Your task to perform on an android device: change notifications settings Image 0: 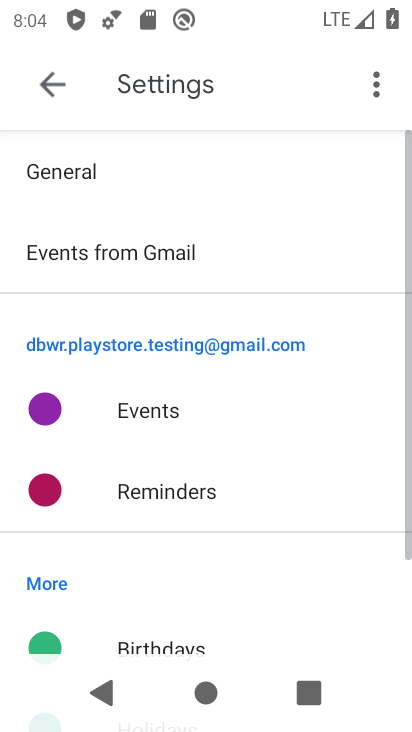
Step 0: press home button
Your task to perform on an android device: change notifications settings Image 1: 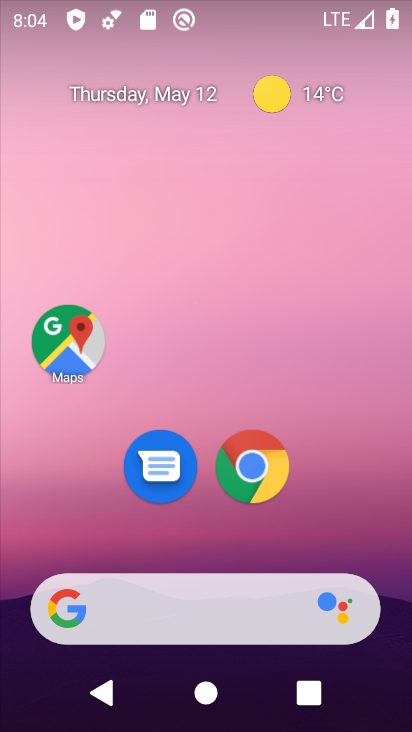
Step 1: drag from (208, 541) to (265, 0)
Your task to perform on an android device: change notifications settings Image 2: 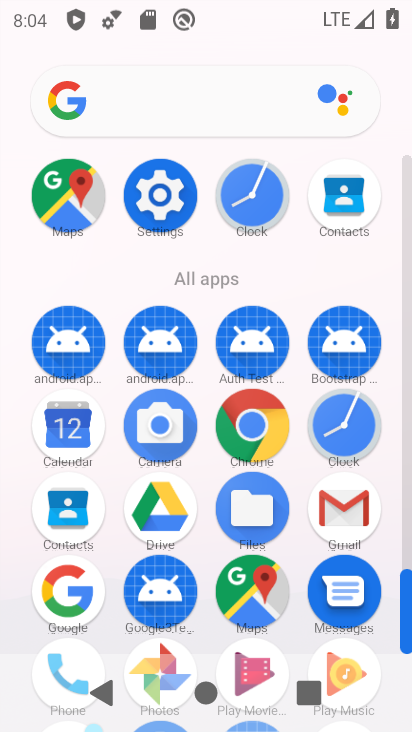
Step 2: click (153, 204)
Your task to perform on an android device: change notifications settings Image 3: 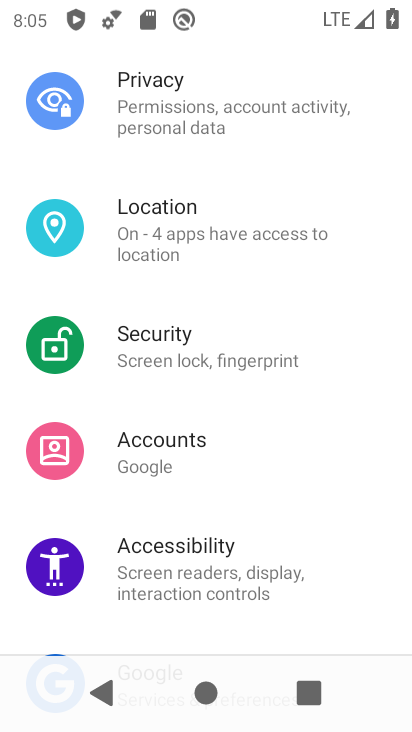
Step 3: drag from (181, 126) to (175, 658)
Your task to perform on an android device: change notifications settings Image 4: 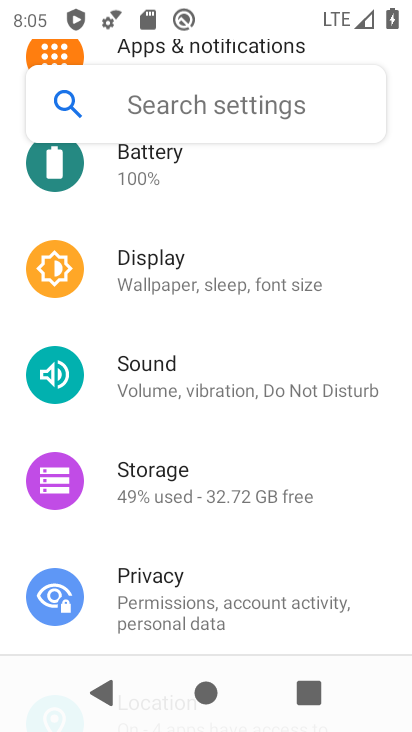
Step 4: drag from (182, 246) to (203, 724)
Your task to perform on an android device: change notifications settings Image 5: 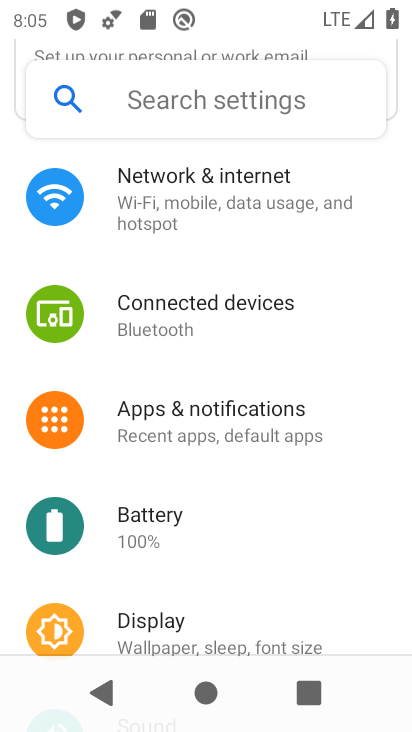
Step 5: click (217, 436)
Your task to perform on an android device: change notifications settings Image 6: 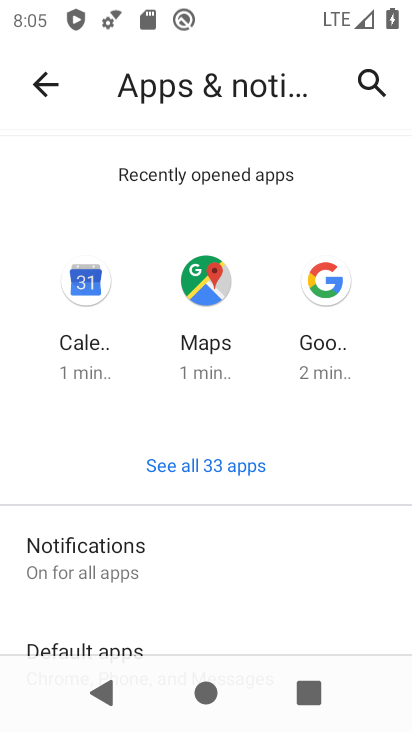
Step 6: click (159, 557)
Your task to perform on an android device: change notifications settings Image 7: 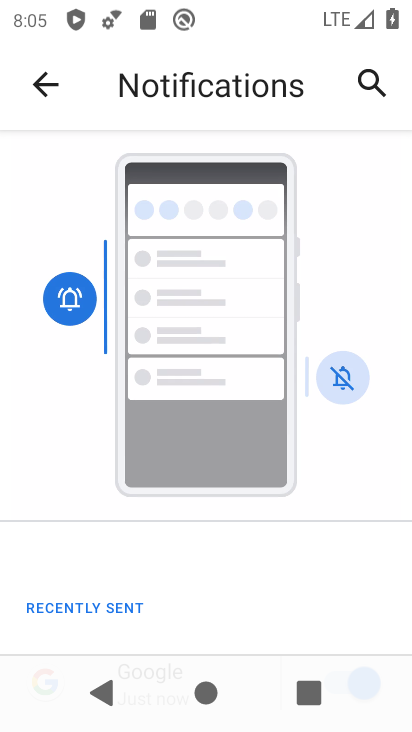
Step 7: drag from (166, 611) to (251, 161)
Your task to perform on an android device: change notifications settings Image 8: 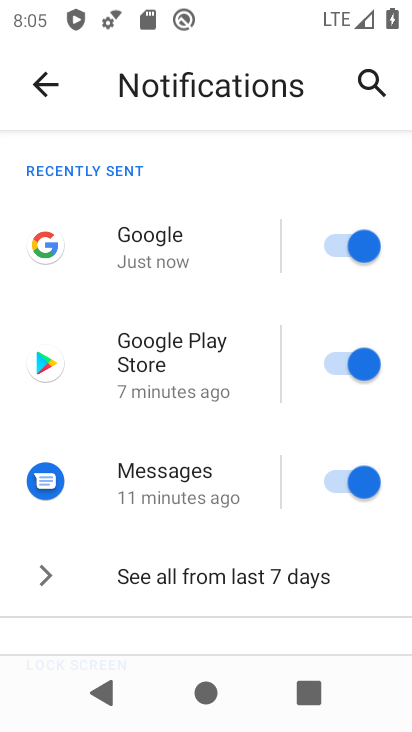
Step 8: drag from (177, 601) to (247, 178)
Your task to perform on an android device: change notifications settings Image 9: 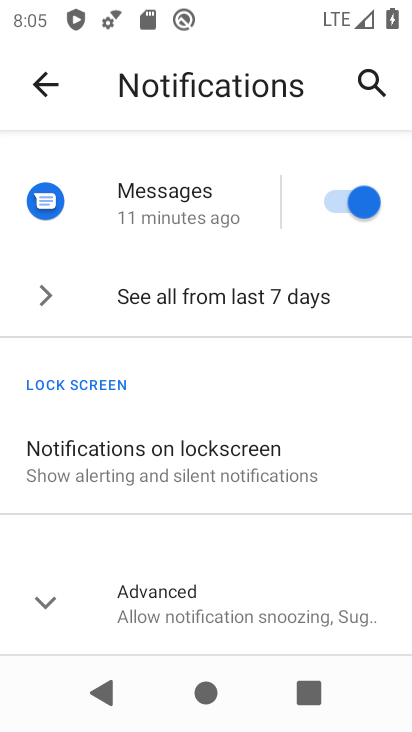
Step 9: drag from (245, 264) to (224, 630)
Your task to perform on an android device: change notifications settings Image 10: 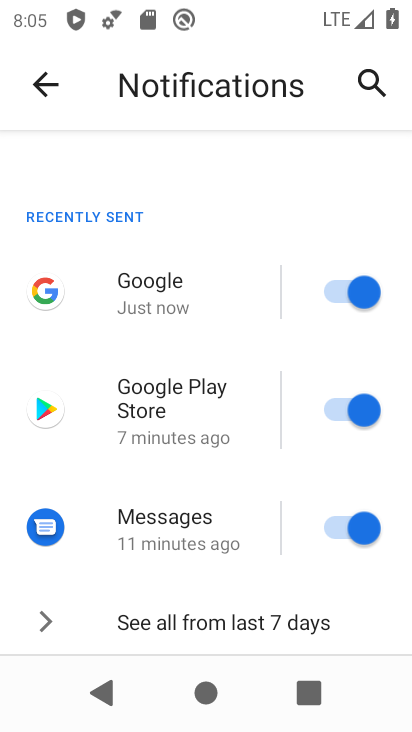
Step 10: click (340, 291)
Your task to perform on an android device: change notifications settings Image 11: 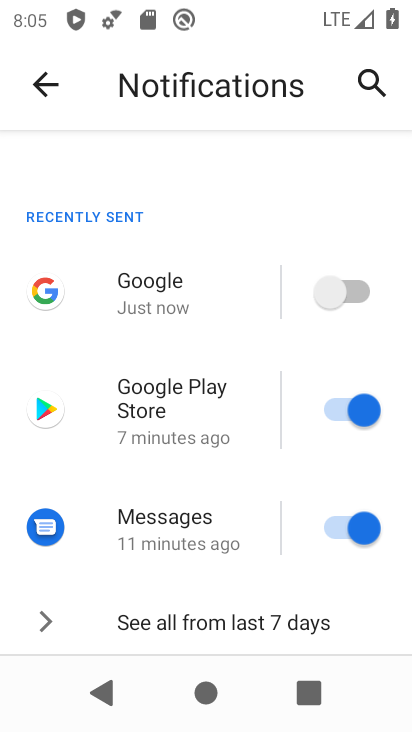
Step 11: click (346, 414)
Your task to perform on an android device: change notifications settings Image 12: 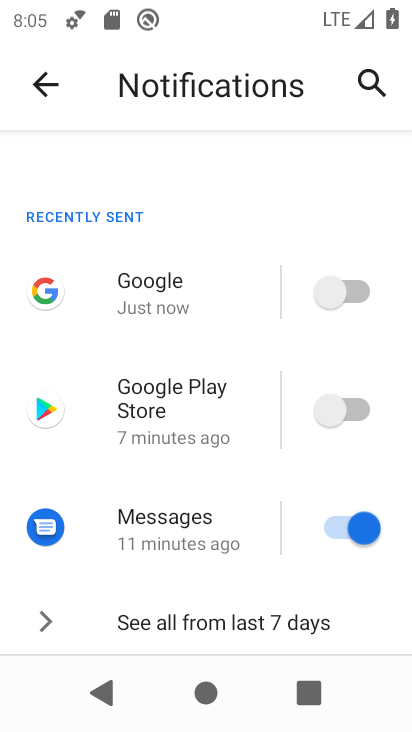
Step 12: click (351, 534)
Your task to perform on an android device: change notifications settings Image 13: 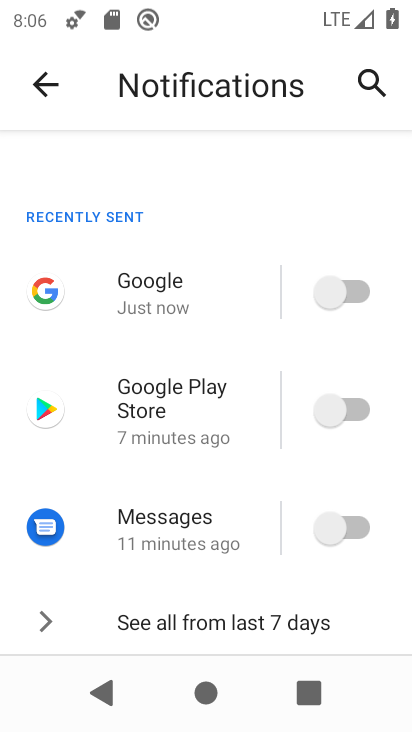
Step 13: drag from (226, 593) to (278, 190)
Your task to perform on an android device: change notifications settings Image 14: 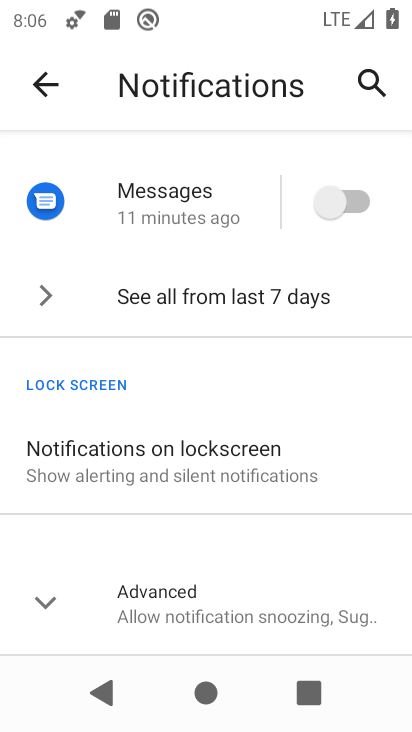
Step 14: click (175, 470)
Your task to perform on an android device: change notifications settings Image 15: 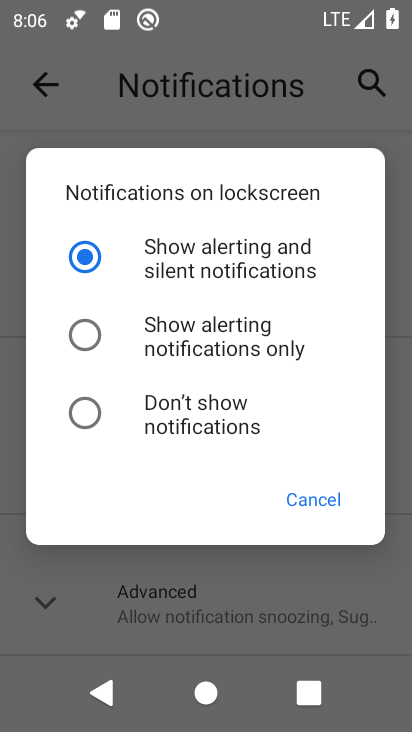
Step 15: click (89, 325)
Your task to perform on an android device: change notifications settings Image 16: 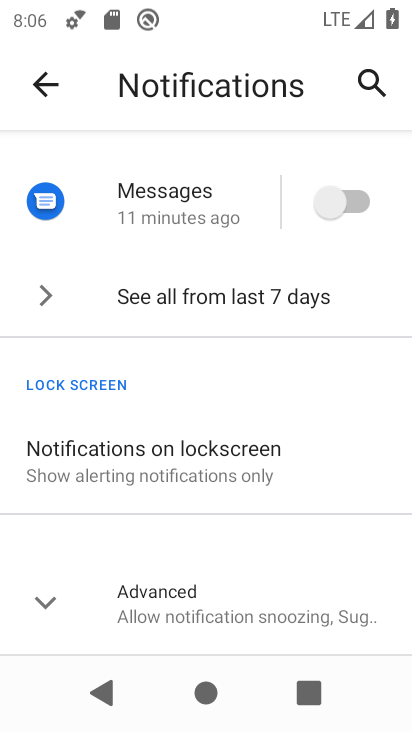
Step 16: click (37, 600)
Your task to perform on an android device: change notifications settings Image 17: 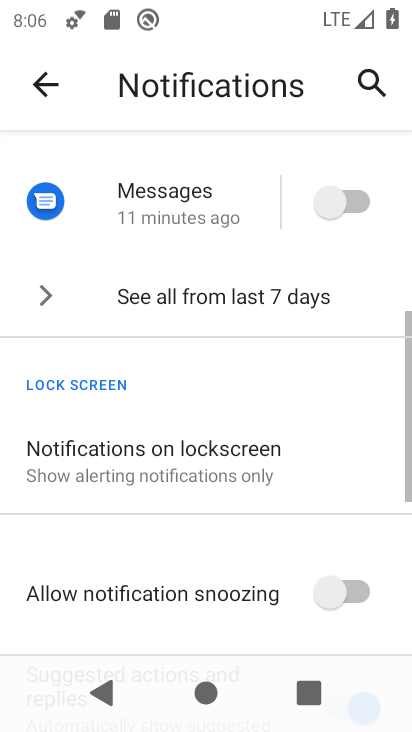
Step 17: task complete